Your task to perform on an android device: Go to Yahoo.com Image 0: 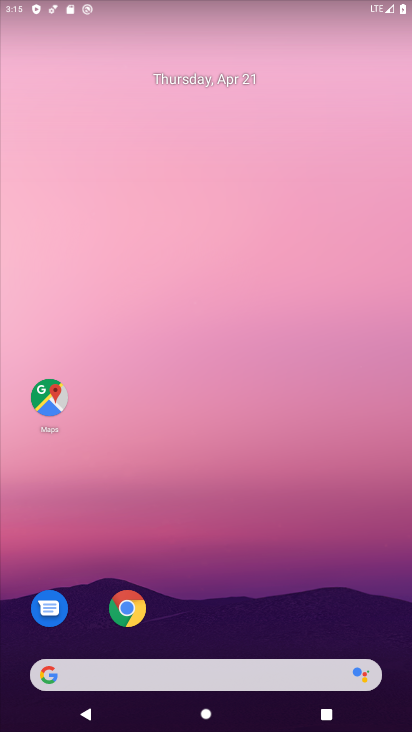
Step 0: click (127, 609)
Your task to perform on an android device: Go to Yahoo.com Image 1: 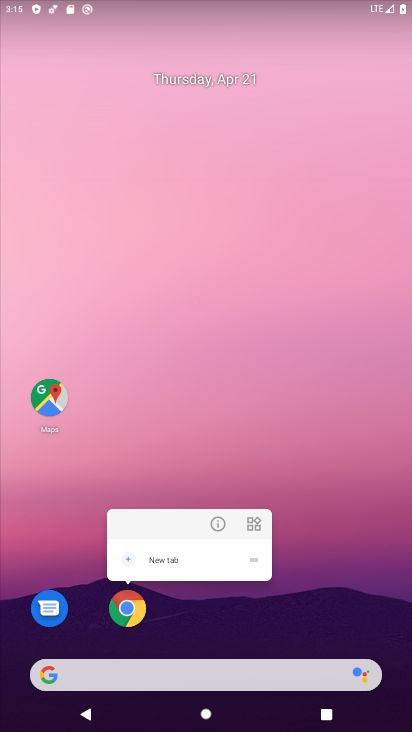
Step 1: click (127, 621)
Your task to perform on an android device: Go to Yahoo.com Image 2: 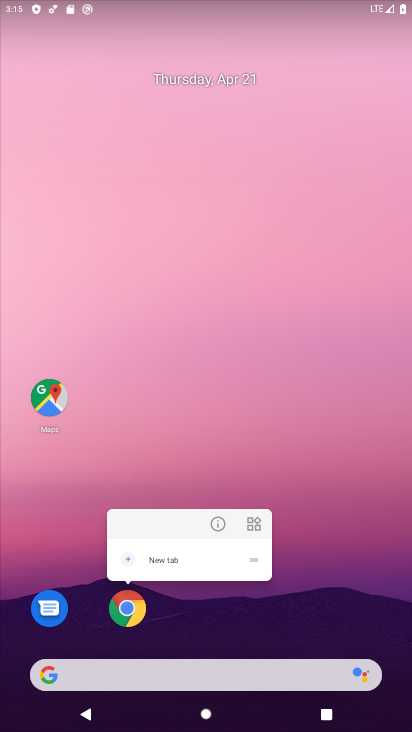
Step 2: click (122, 626)
Your task to perform on an android device: Go to Yahoo.com Image 3: 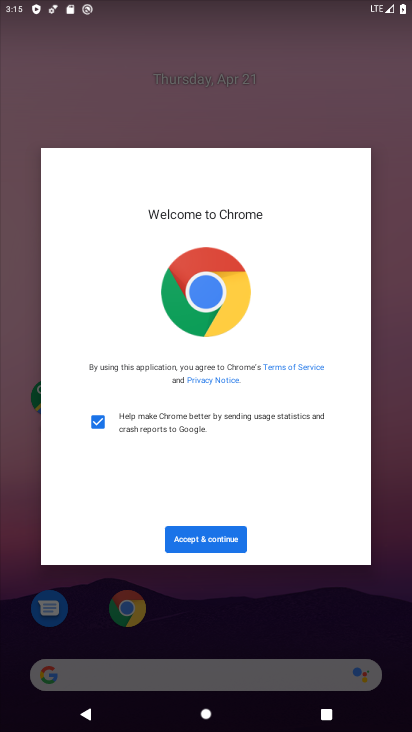
Step 3: click (215, 547)
Your task to perform on an android device: Go to Yahoo.com Image 4: 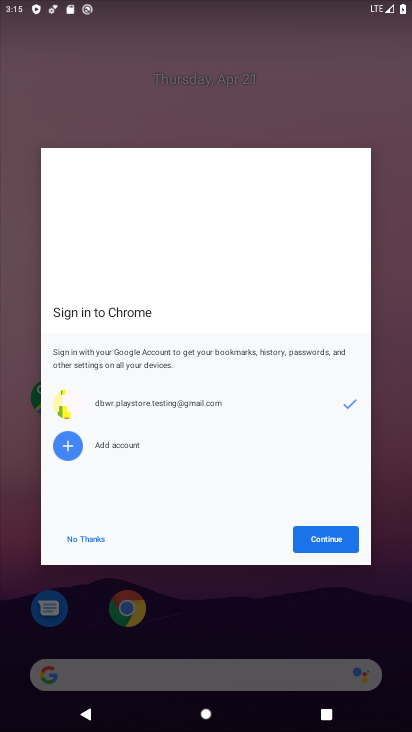
Step 4: click (331, 546)
Your task to perform on an android device: Go to Yahoo.com Image 5: 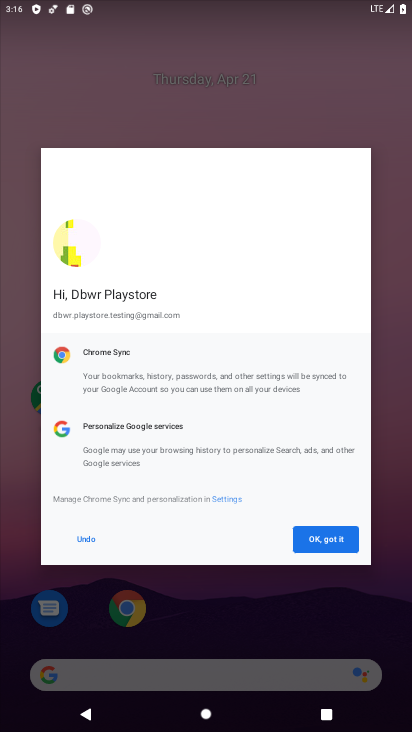
Step 5: click (341, 544)
Your task to perform on an android device: Go to Yahoo.com Image 6: 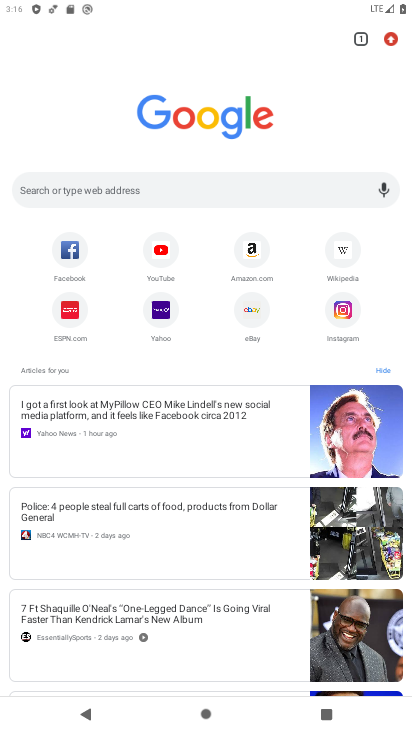
Step 6: click (167, 317)
Your task to perform on an android device: Go to Yahoo.com Image 7: 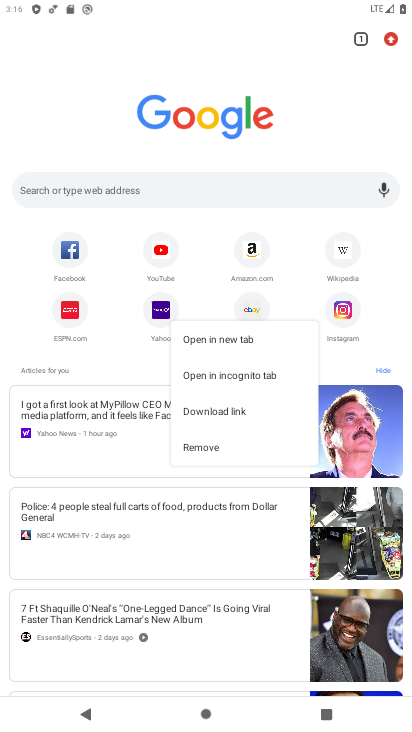
Step 7: click (159, 313)
Your task to perform on an android device: Go to Yahoo.com Image 8: 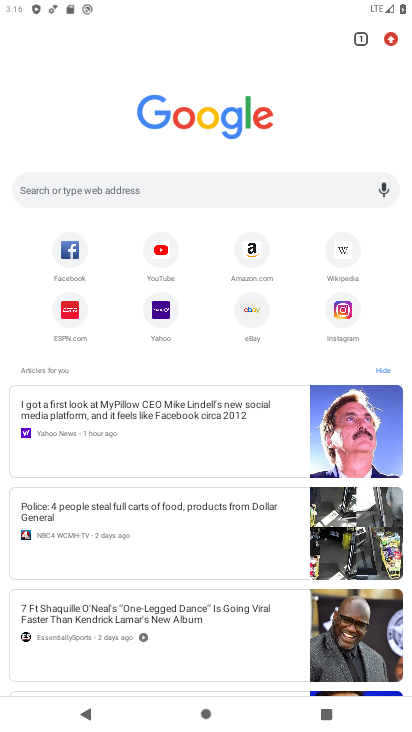
Step 8: click (152, 313)
Your task to perform on an android device: Go to Yahoo.com Image 9: 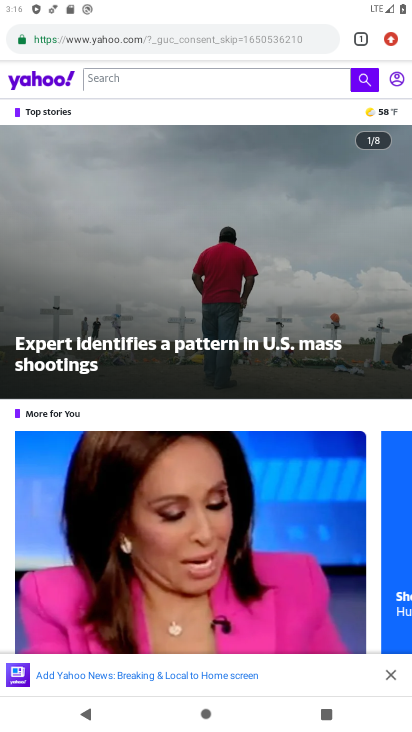
Step 9: task complete